Your task to perform on an android device: star an email in the gmail app Image 0: 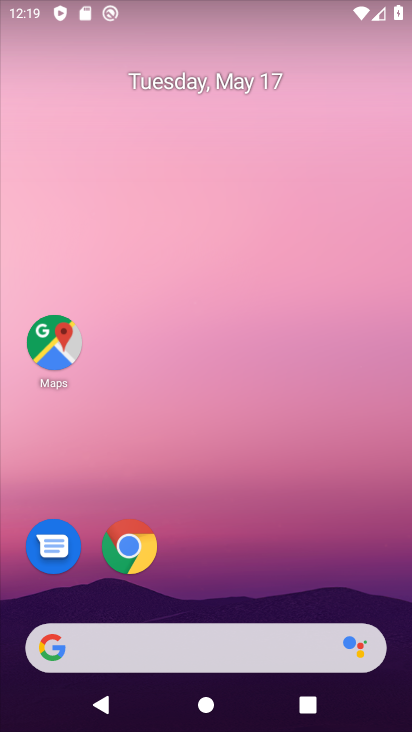
Step 0: drag from (178, 580) to (185, 215)
Your task to perform on an android device: star an email in the gmail app Image 1: 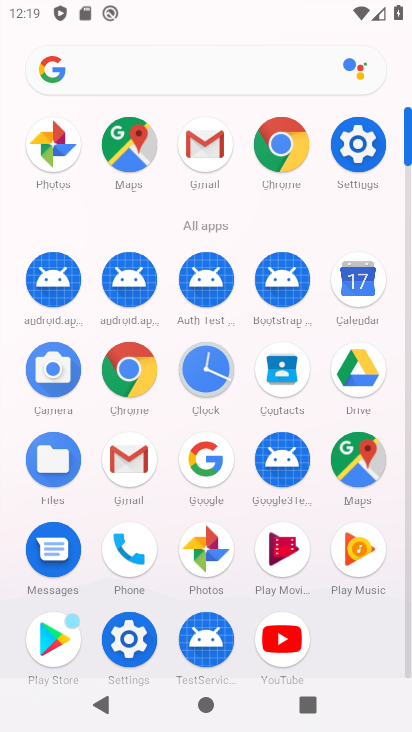
Step 1: click (218, 156)
Your task to perform on an android device: star an email in the gmail app Image 2: 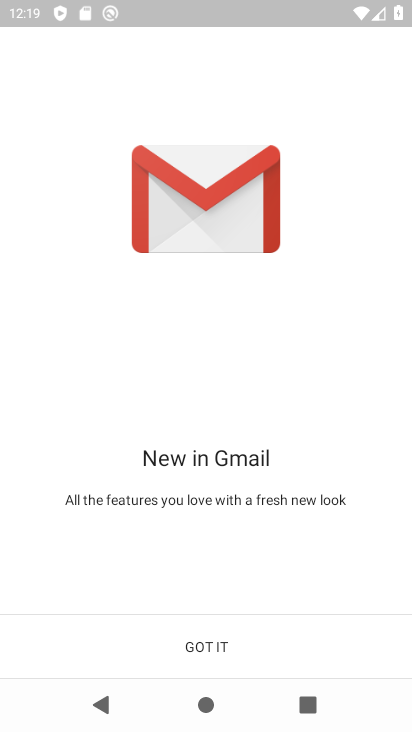
Step 2: click (200, 628)
Your task to perform on an android device: star an email in the gmail app Image 3: 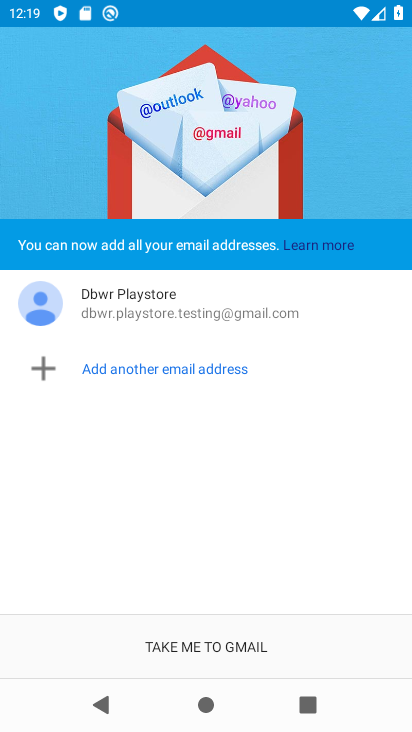
Step 3: click (201, 628)
Your task to perform on an android device: star an email in the gmail app Image 4: 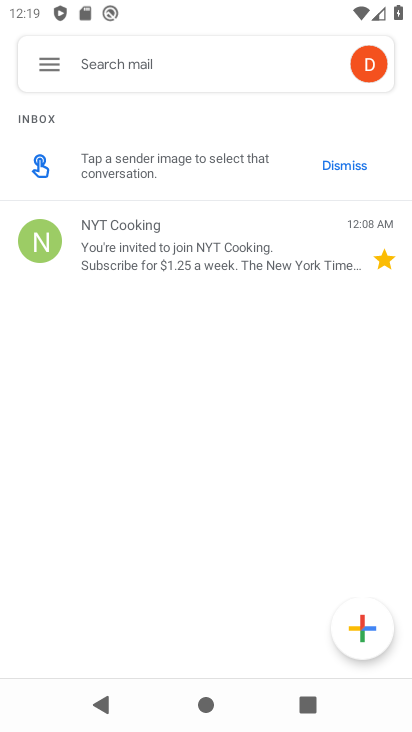
Step 4: click (38, 58)
Your task to perform on an android device: star an email in the gmail app Image 5: 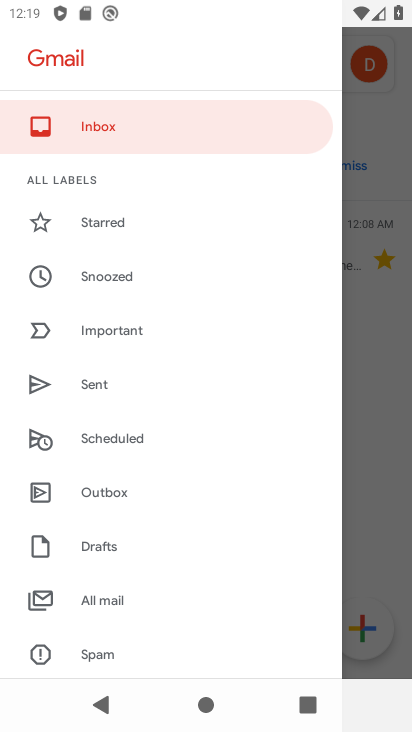
Step 5: drag from (164, 494) to (207, 320)
Your task to perform on an android device: star an email in the gmail app Image 6: 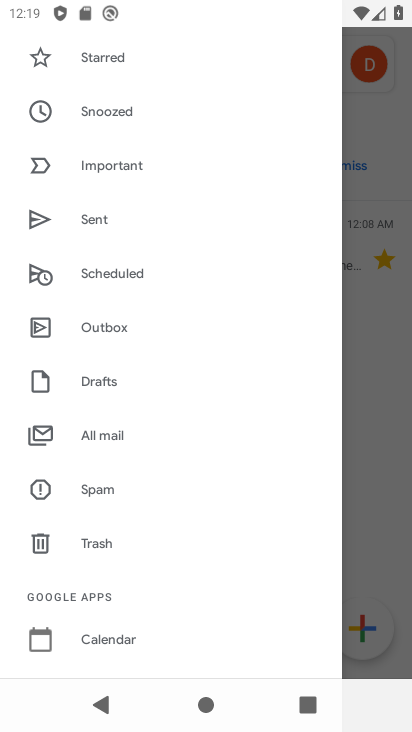
Step 6: click (101, 424)
Your task to perform on an android device: star an email in the gmail app Image 7: 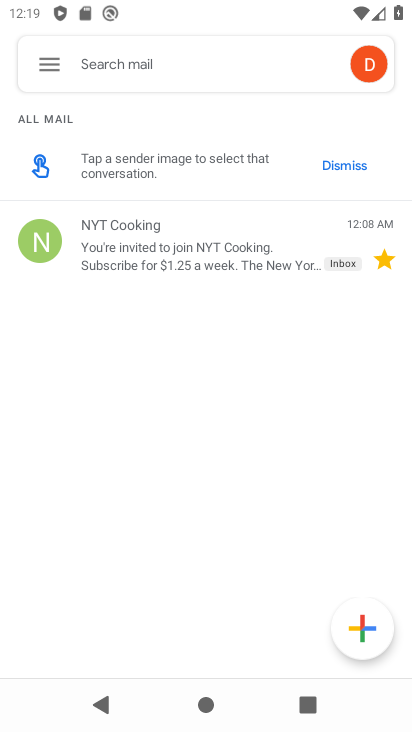
Step 7: click (390, 259)
Your task to perform on an android device: star an email in the gmail app Image 8: 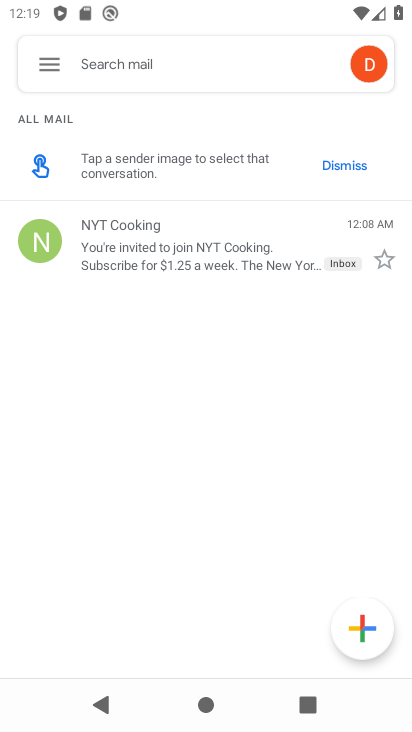
Step 8: click (390, 259)
Your task to perform on an android device: star an email in the gmail app Image 9: 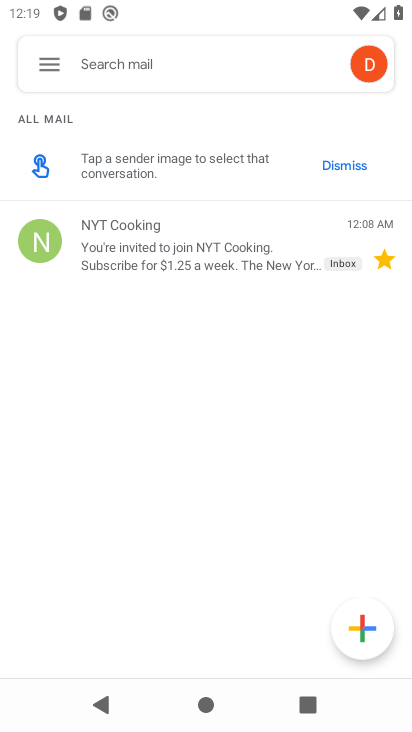
Step 9: task complete